Your task to perform on an android device: Go to Yahoo.com Image 0: 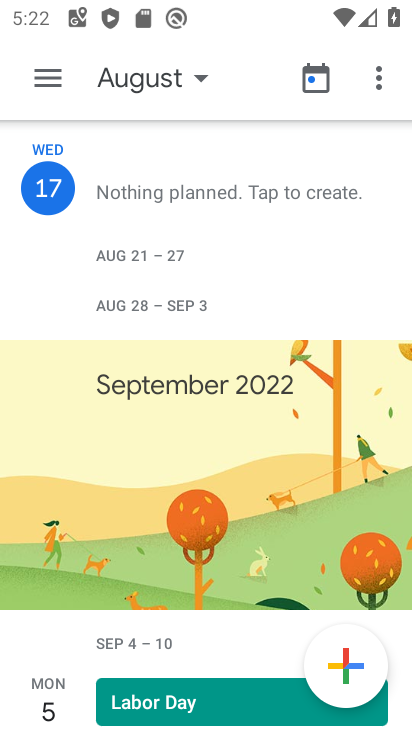
Step 0: press home button
Your task to perform on an android device: Go to Yahoo.com Image 1: 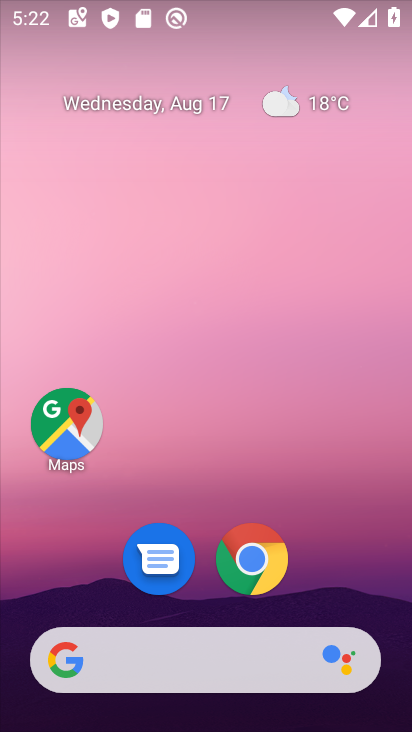
Step 1: click (228, 566)
Your task to perform on an android device: Go to Yahoo.com Image 2: 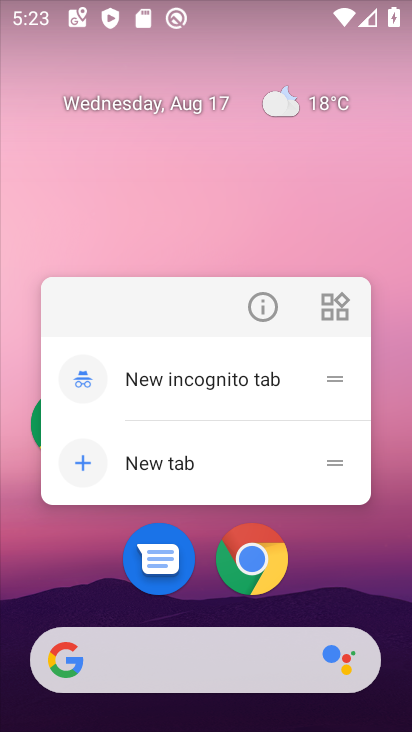
Step 2: click (245, 570)
Your task to perform on an android device: Go to Yahoo.com Image 3: 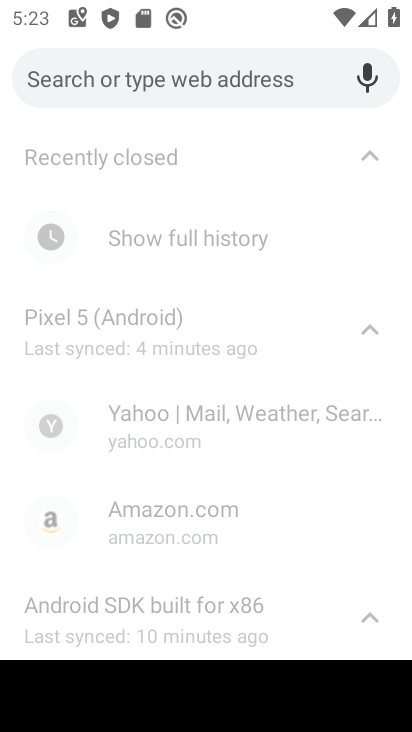
Step 3: type "yahoo.com"
Your task to perform on an android device: Go to Yahoo.com Image 4: 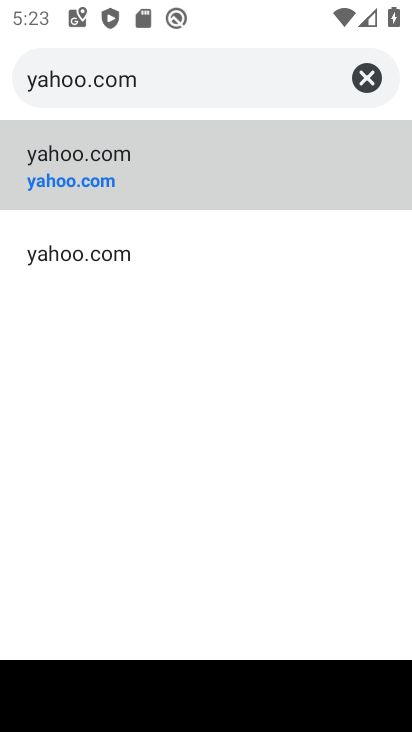
Step 4: click (187, 153)
Your task to perform on an android device: Go to Yahoo.com Image 5: 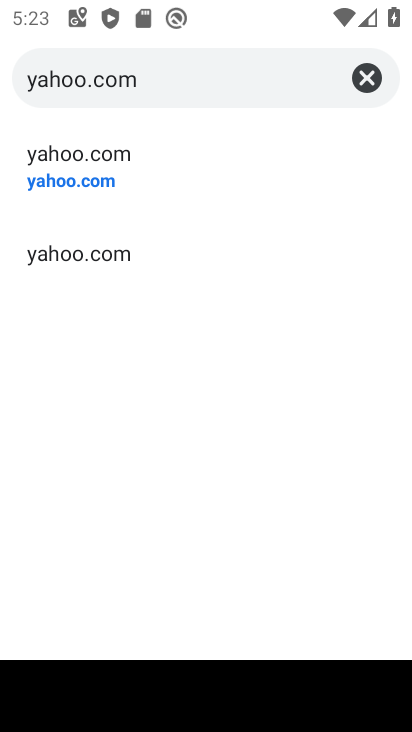
Step 5: click (221, 156)
Your task to perform on an android device: Go to Yahoo.com Image 6: 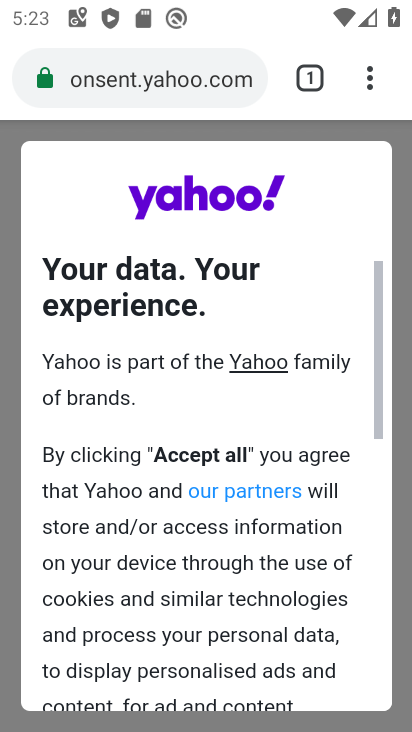
Step 6: task complete